Your task to perform on an android device: Open Chrome and go to the settings page Image 0: 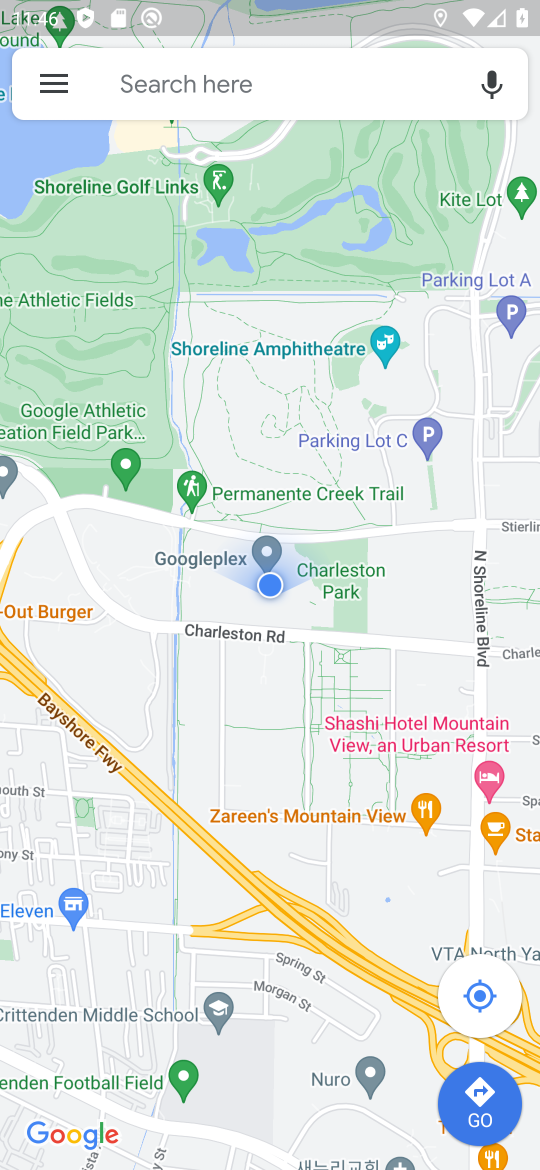
Step 0: press home button
Your task to perform on an android device: Open Chrome and go to the settings page Image 1: 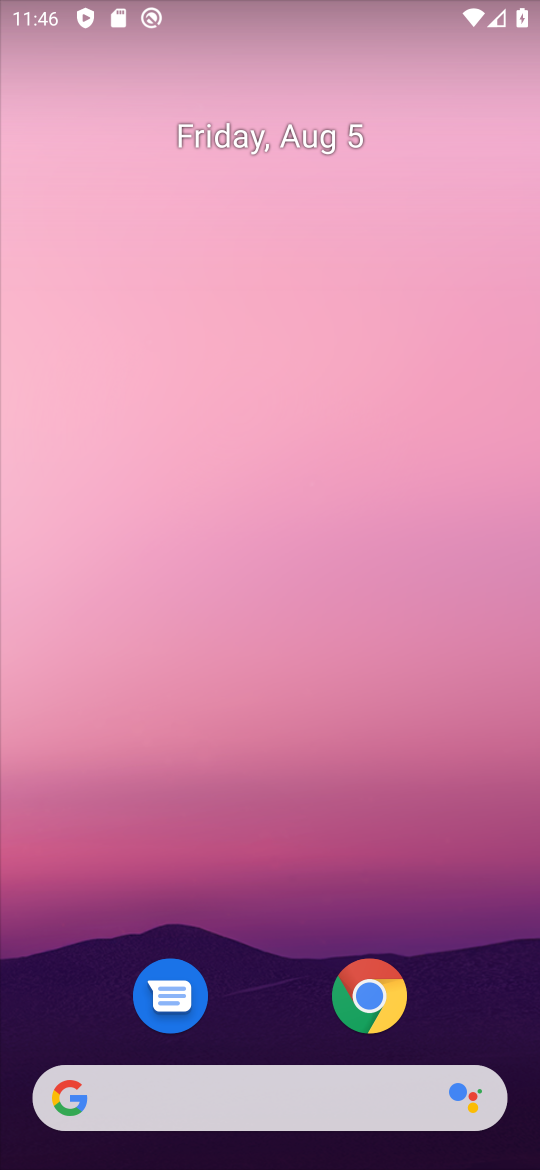
Step 1: click (387, 1001)
Your task to perform on an android device: Open Chrome and go to the settings page Image 2: 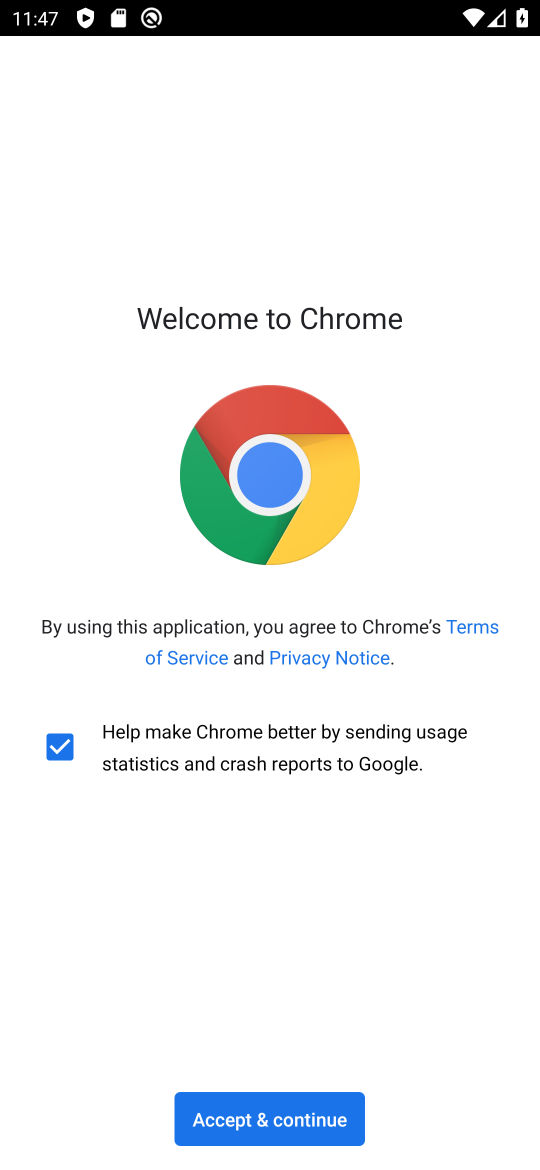
Step 2: click (255, 1125)
Your task to perform on an android device: Open Chrome and go to the settings page Image 3: 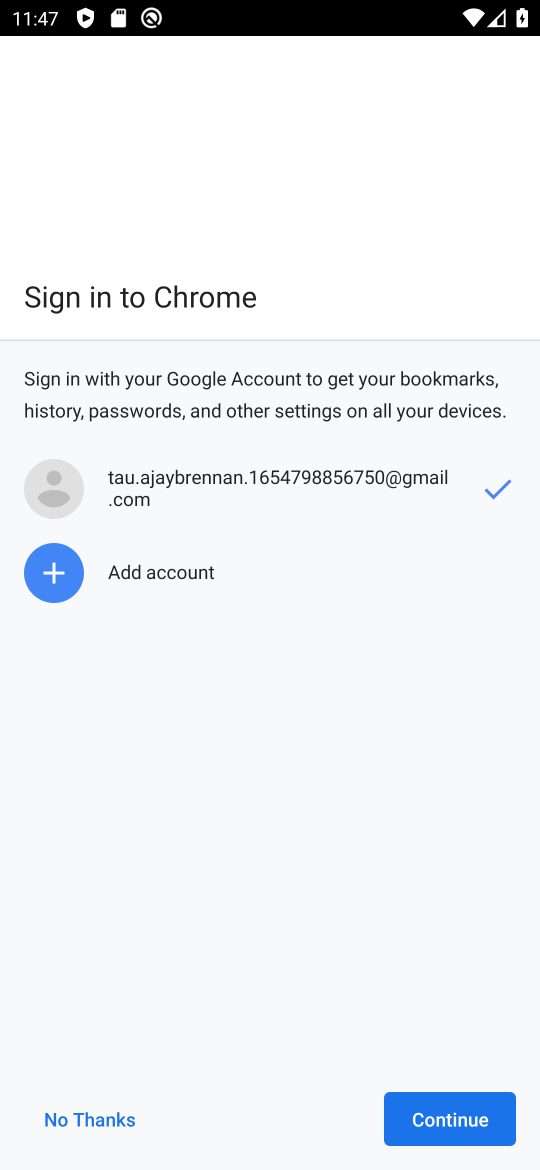
Step 3: click (438, 1113)
Your task to perform on an android device: Open Chrome and go to the settings page Image 4: 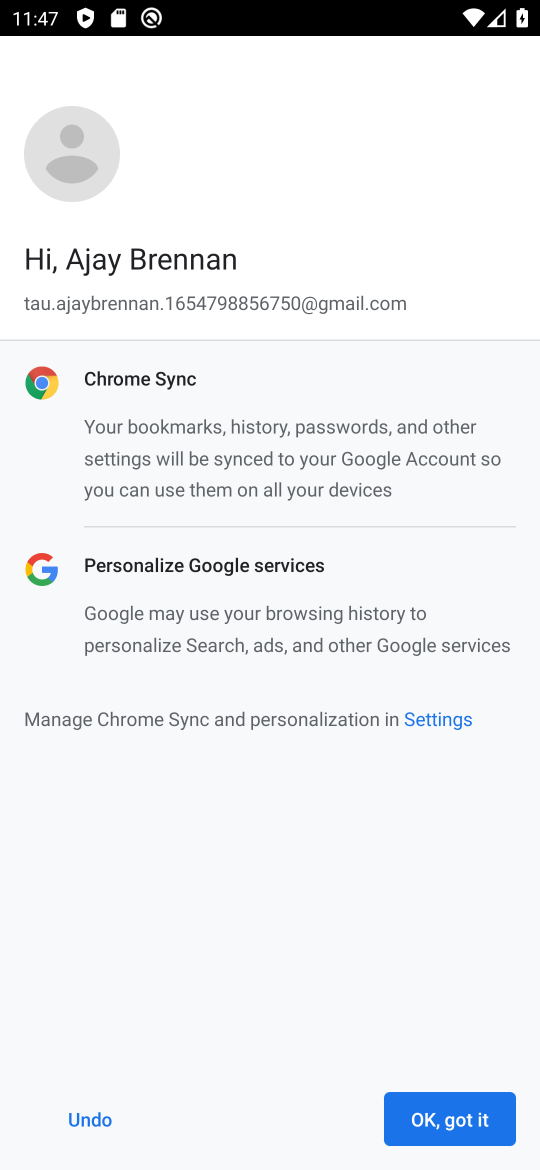
Step 4: click (435, 1121)
Your task to perform on an android device: Open Chrome and go to the settings page Image 5: 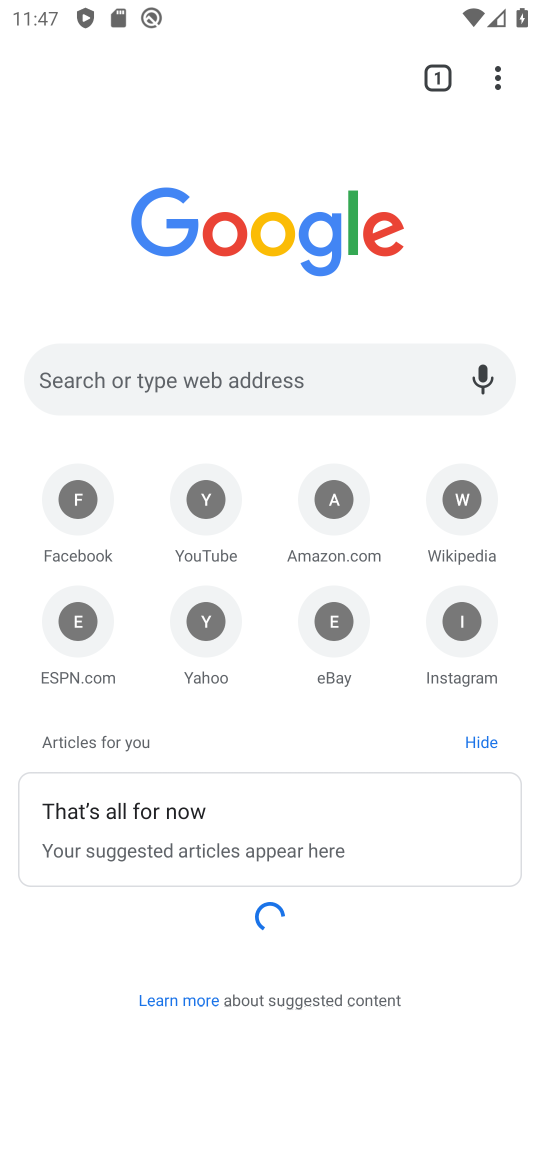
Step 5: click (497, 80)
Your task to perform on an android device: Open Chrome and go to the settings page Image 6: 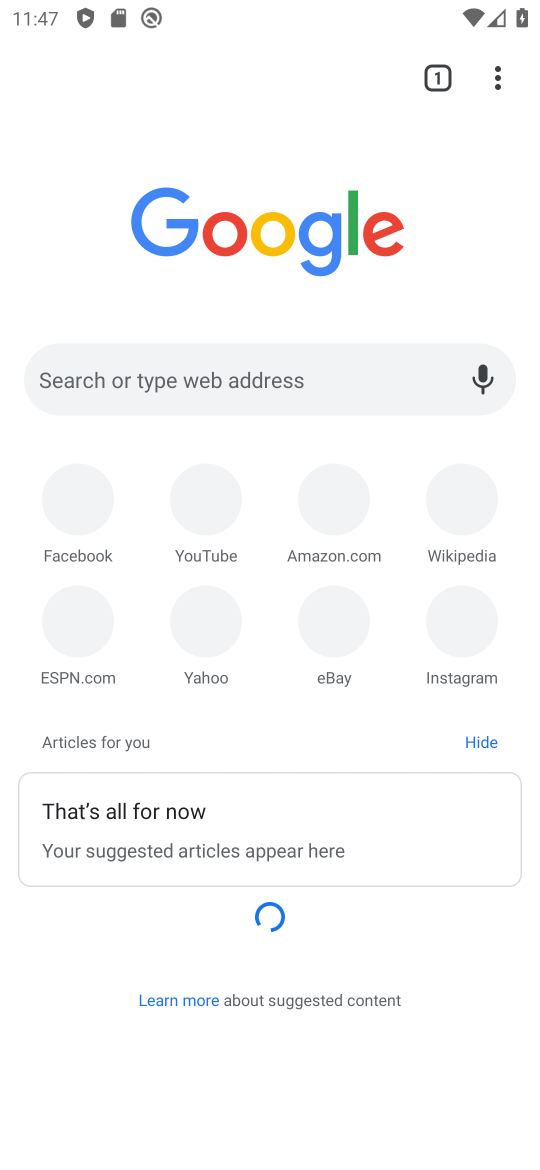
Step 6: click (497, 80)
Your task to perform on an android device: Open Chrome and go to the settings page Image 7: 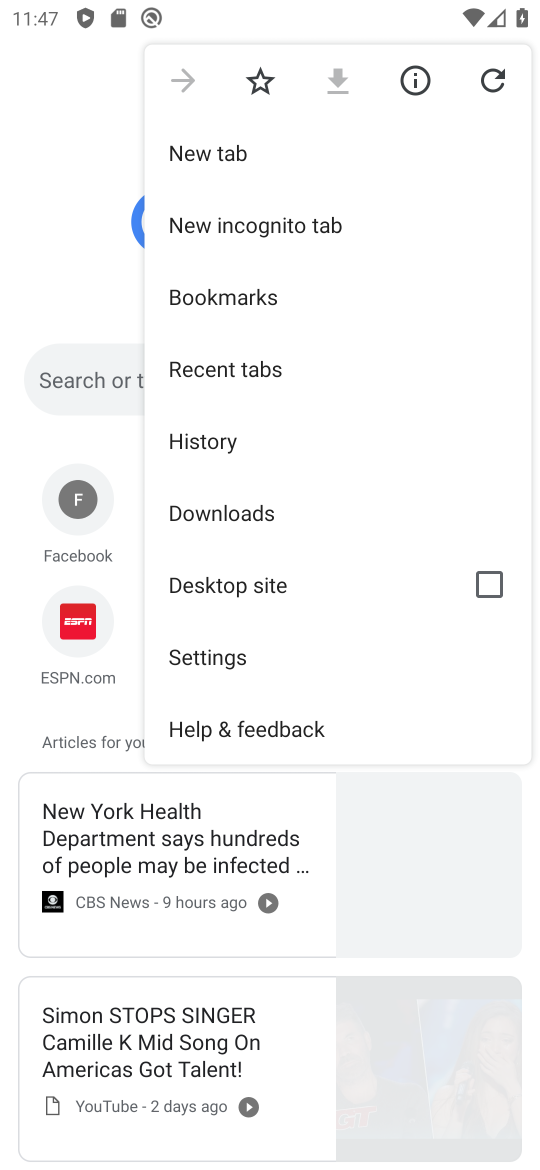
Step 7: click (253, 639)
Your task to perform on an android device: Open Chrome and go to the settings page Image 8: 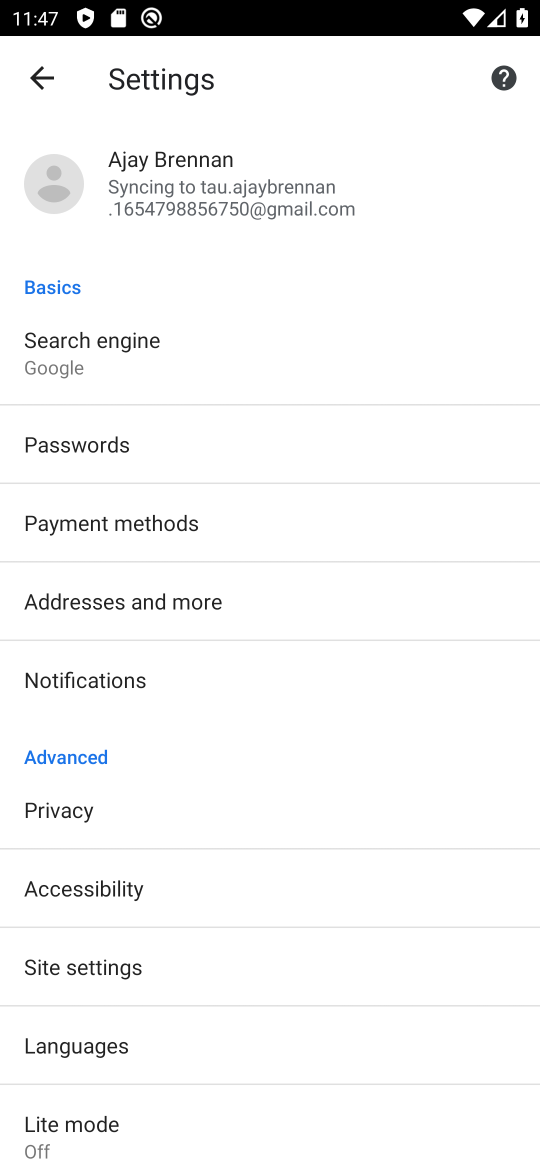
Step 8: task complete